Your task to perform on an android device: What's the weather going to be this weekend? Image 0: 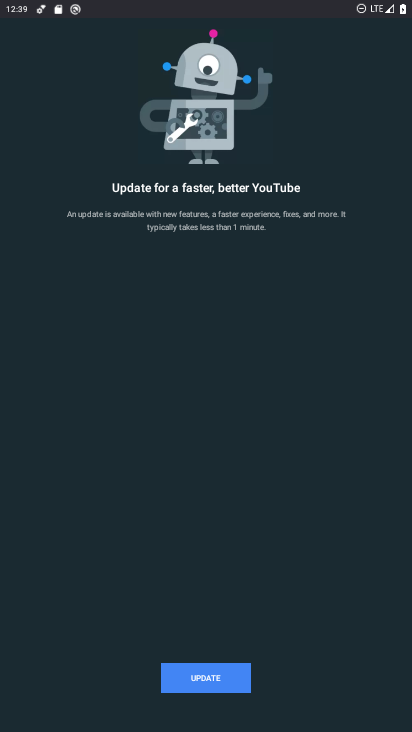
Step 0: press home button
Your task to perform on an android device: What's the weather going to be this weekend? Image 1: 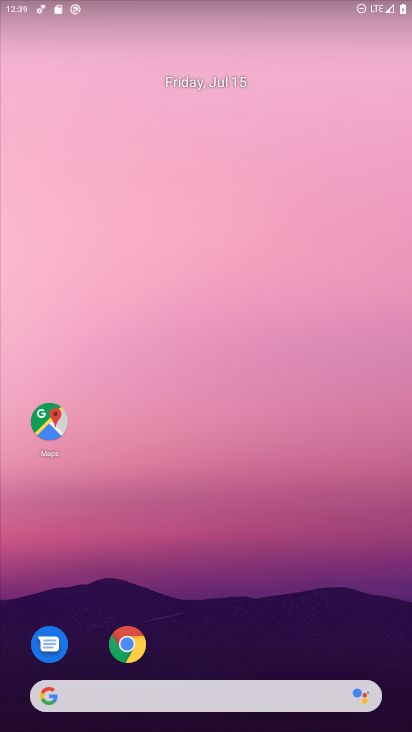
Step 1: click (222, 686)
Your task to perform on an android device: What's the weather going to be this weekend? Image 2: 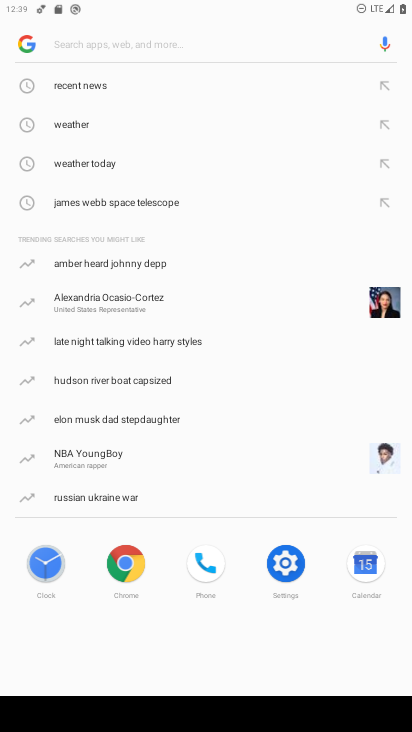
Step 2: click (121, 123)
Your task to perform on an android device: What's the weather going to be this weekend? Image 3: 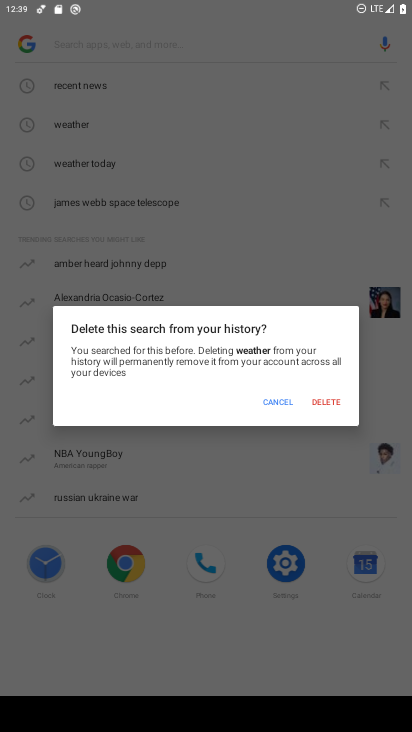
Step 3: click (287, 408)
Your task to perform on an android device: What's the weather going to be this weekend? Image 4: 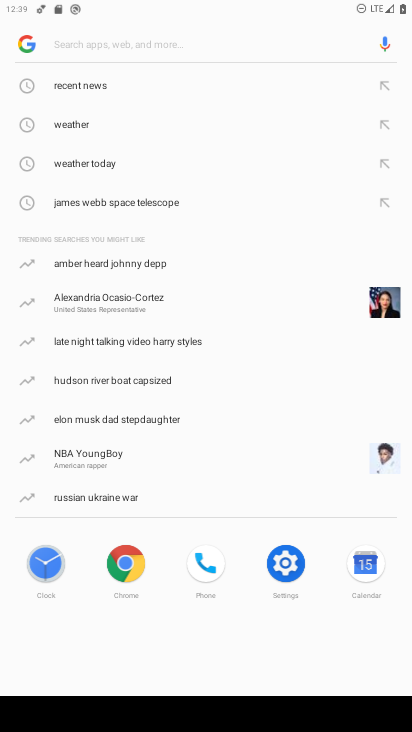
Step 4: click (91, 130)
Your task to perform on an android device: What's the weather going to be this weekend? Image 5: 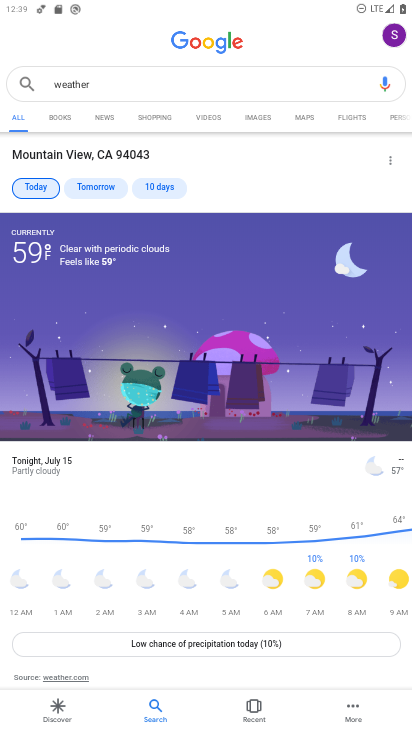
Step 5: click (150, 197)
Your task to perform on an android device: What's the weather going to be this weekend? Image 6: 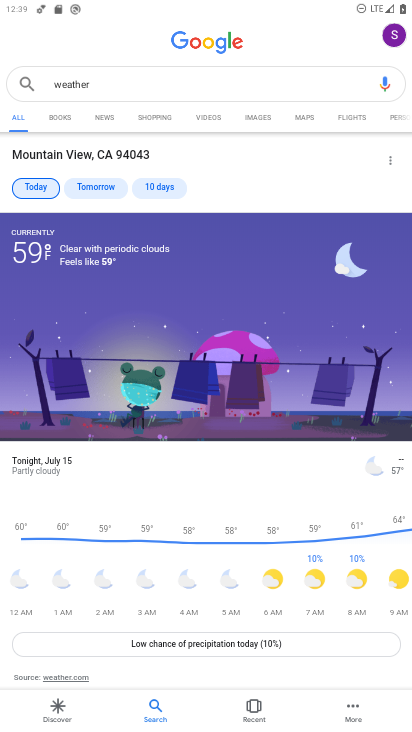
Step 6: task complete